Your task to perform on an android device: turn off notifications settings in the gmail app Image 0: 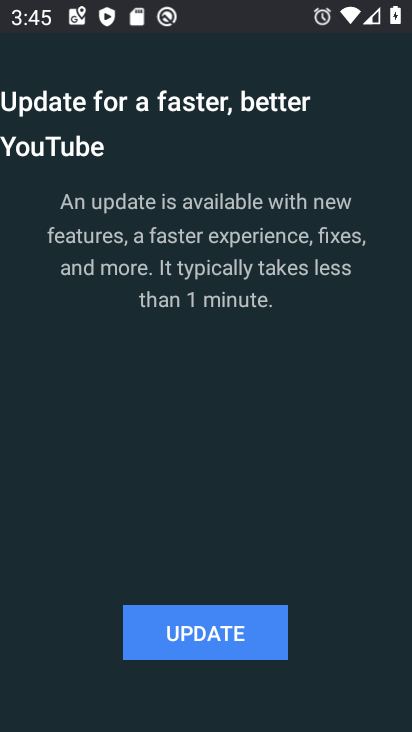
Step 0: press back button
Your task to perform on an android device: turn off notifications settings in the gmail app Image 1: 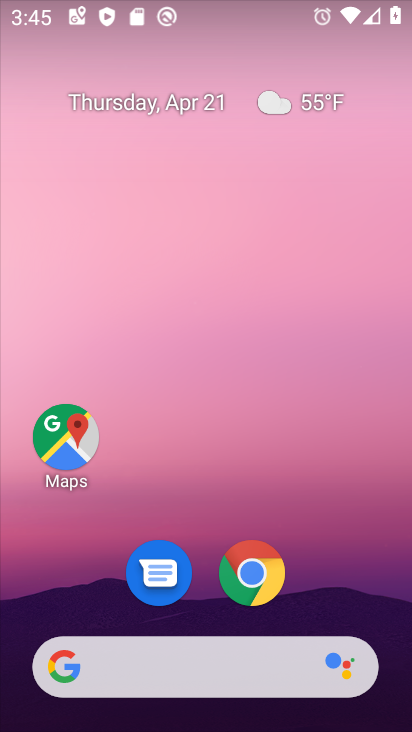
Step 1: drag from (371, 606) to (309, 145)
Your task to perform on an android device: turn off notifications settings in the gmail app Image 2: 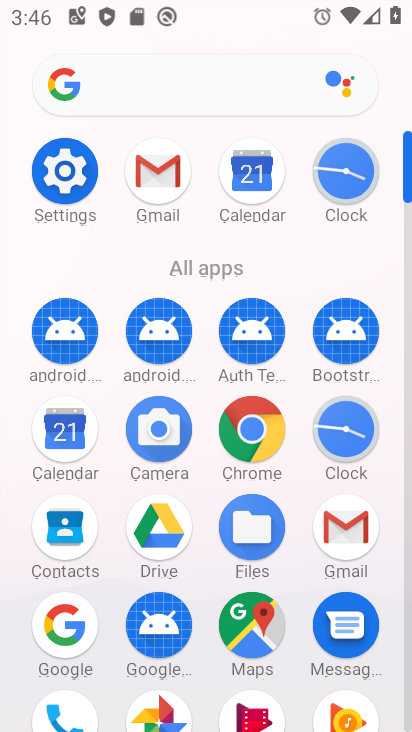
Step 2: click (409, 696)
Your task to perform on an android device: turn off notifications settings in the gmail app Image 3: 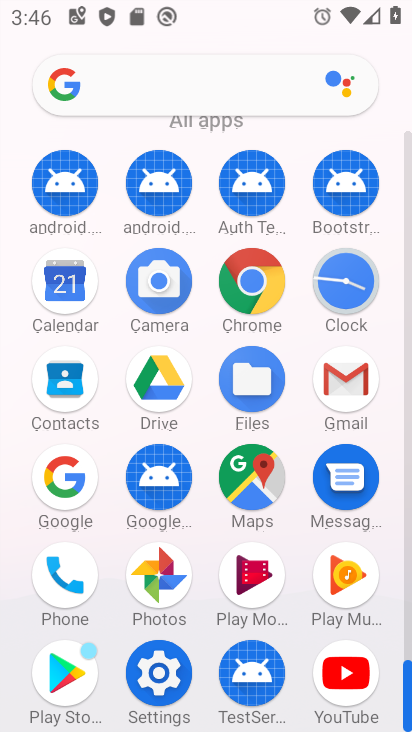
Step 3: click (342, 370)
Your task to perform on an android device: turn off notifications settings in the gmail app Image 4: 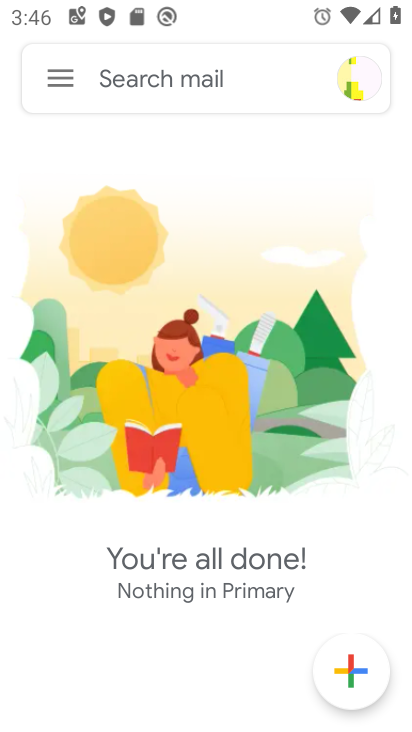
Step 4: click (59, 77)
Your task to perform on an android device: turn off notifications settings in the gmail app Image 5: 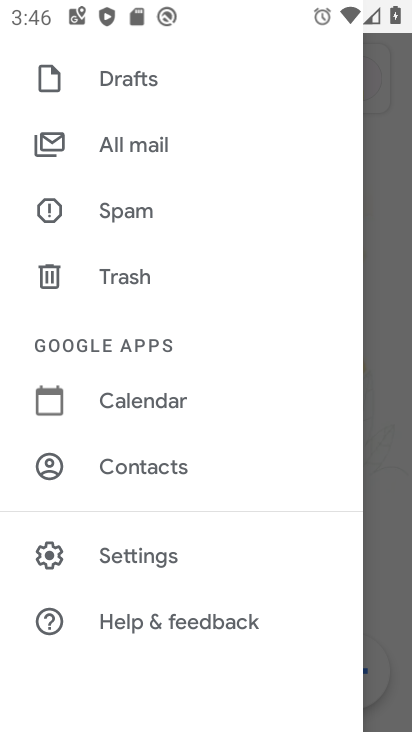
Step 5: click (131, 558)
Your task to perform on an android device: turn off notifications settings in the gmail app Image 6: 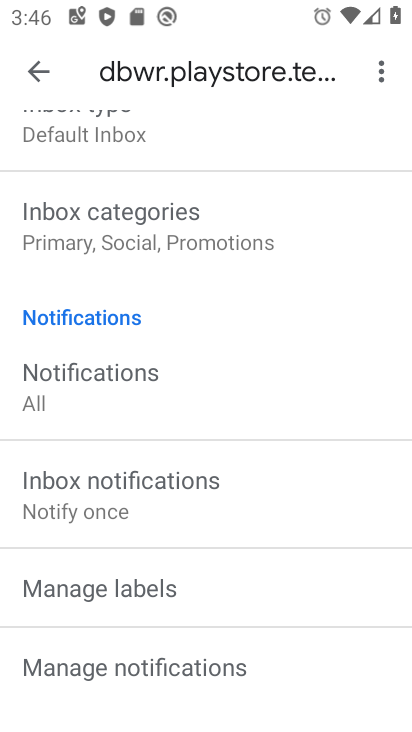
Step 6: drag from (244, 596) to (286, 354)
Your task to perform on an android device: turn off notifications settings in the gmail app Image 7: 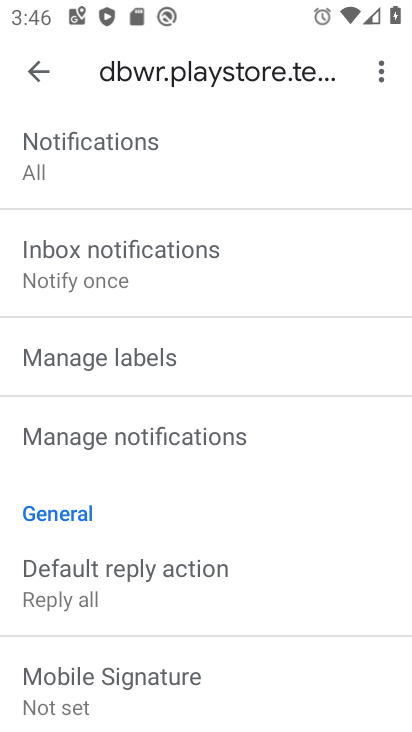
Step 7: click (125, 437)
Your task to perform on an android device: turn off notifications settings in the gmail app Image 8: 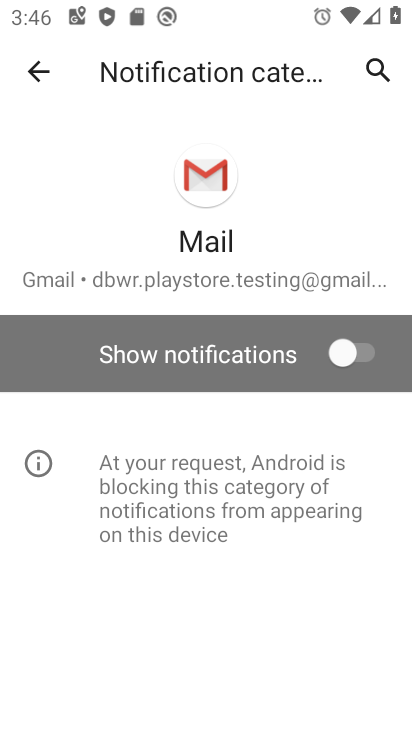
Step 8: task complete